Your task to perform on an android device: set an alarm Image 0: 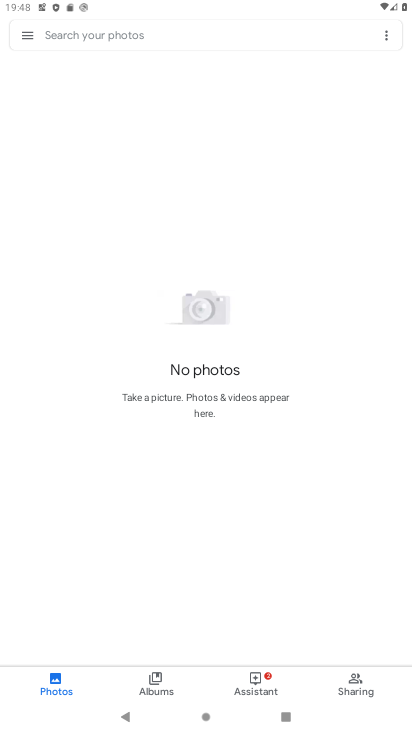
Step 0: press home button
Your task to perform on an android device: set an alarm Image 1: 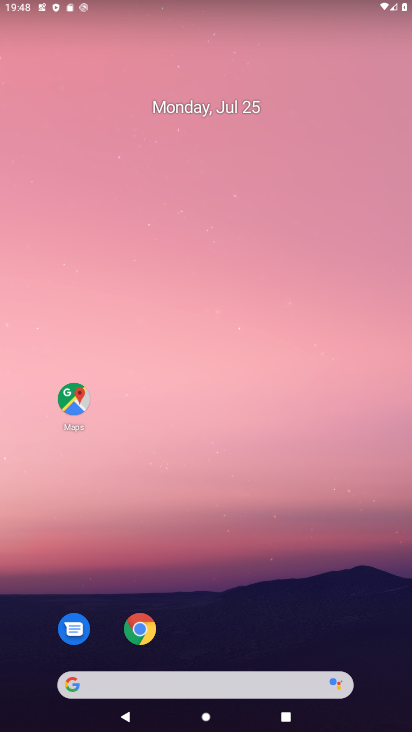
Step 1: drag from (34, 664) to (241, 146)
Your task to perform on an android device: set an alarm Image 2: 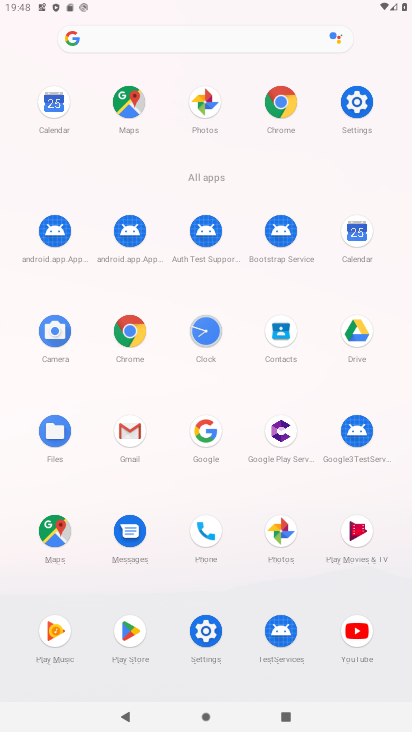
Step 2: click (210, 336)
Your task to perform on an android device: set an alarm Image 3: 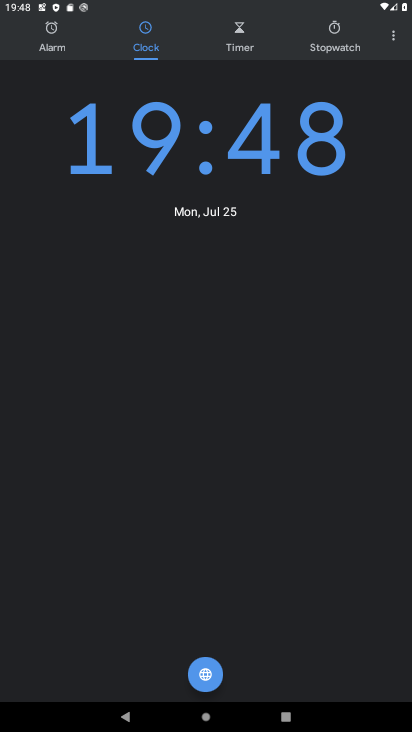
Step 3: click (59, 33)
Your task to perform on an android device: set an alarm Image 4: 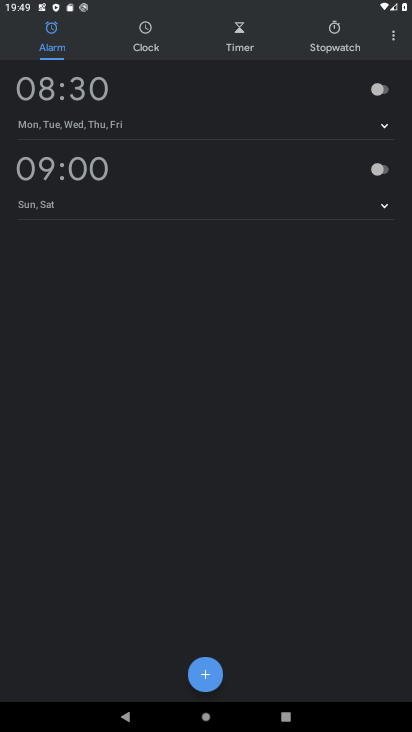
Step 4: click (376, 101)
Your task to perform on an android device: set an alarm Image 5: 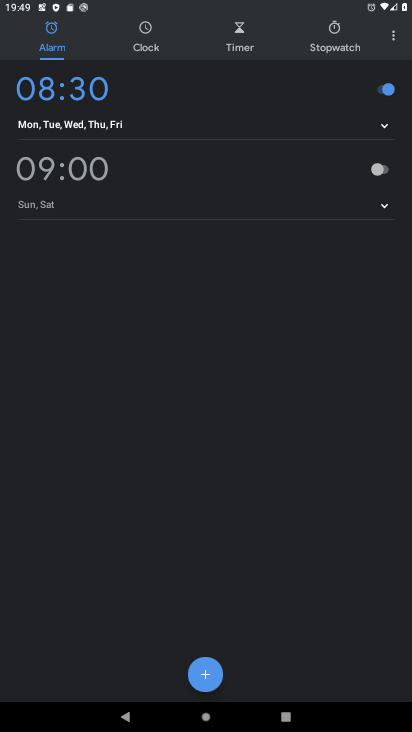
Step 5: task complete